Your task to perform on an android device: Show me popular games on the Play Store Image 0: 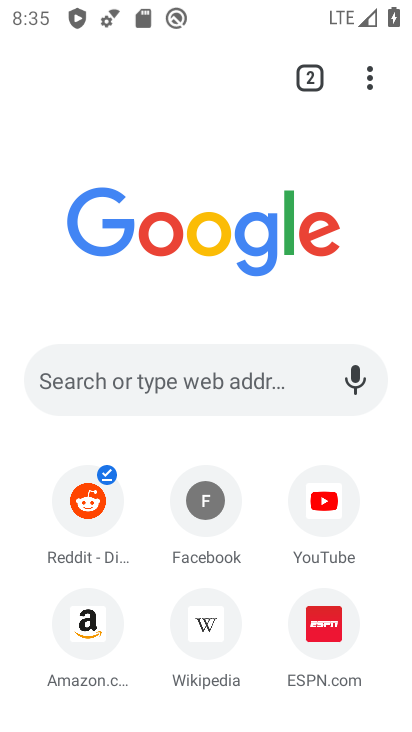
Step 0: press home button
Your task to perform on an android device: Show me popular games on the Play Store Image 1: 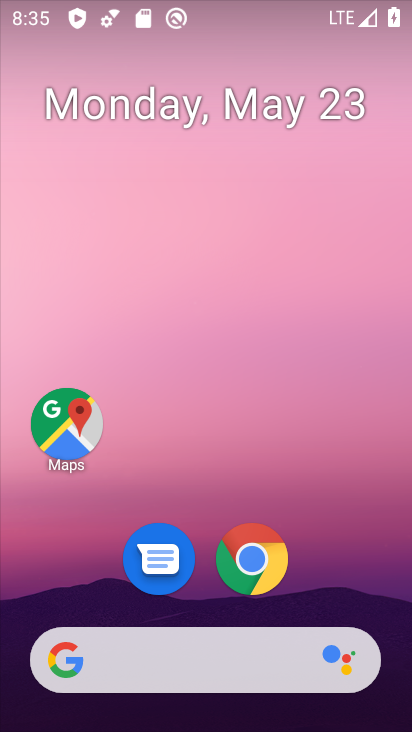
Step 1: drag from (332, 579) to (343, 70)
Your task to perform on an android device: Show me popular games on the Play Store Image 2: 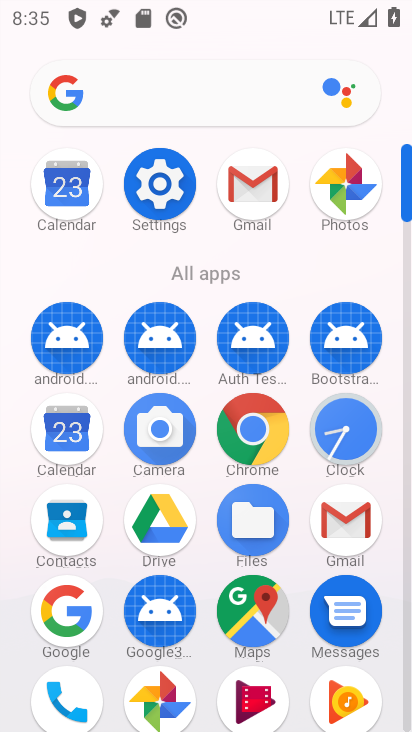
Step 2: drag from (304, 571) to (304, 142)
Your task to perform on an android device: Show me popular games on the Play Store Image 3: 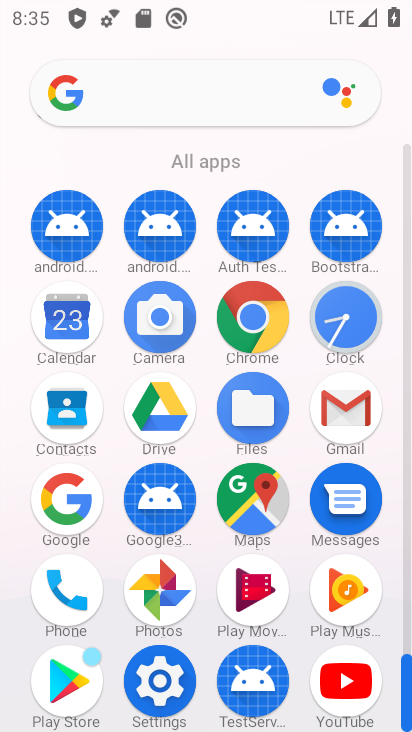
Step 3: click (56, 678)
Your task to perform on an android device: Show me popular games on the Play Store Image 4: 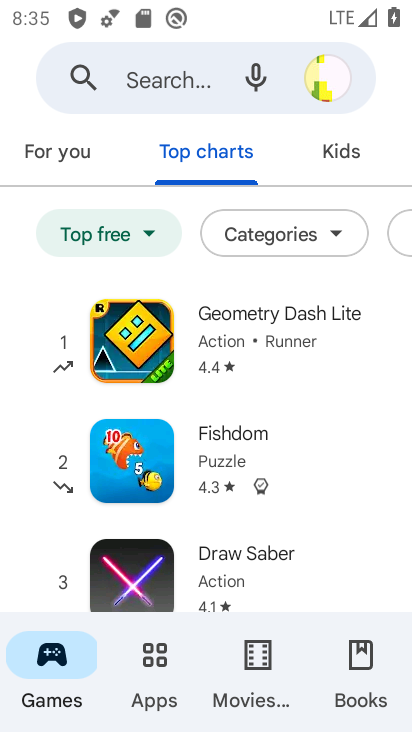
Step 4: task complete